Your task to perform on an android device: open app "DoorDash - Dasher" (install if not already installed) Image 0: 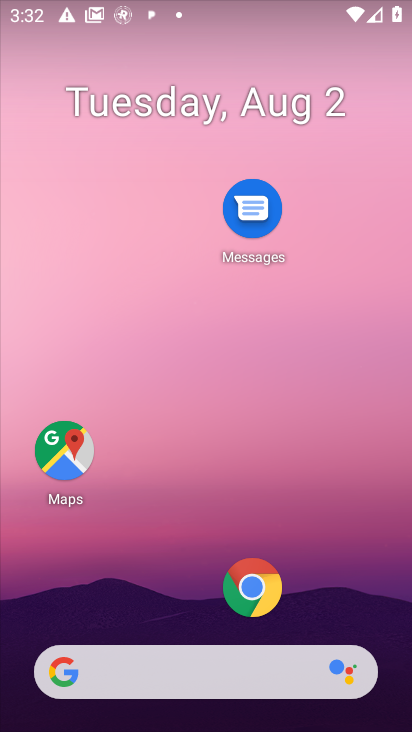
Step 0: drag from (169, 580) to (218, 248)
Your task to perform on an android device: open app "DoorDash - Dasher" (install if not already installed) Image 1: 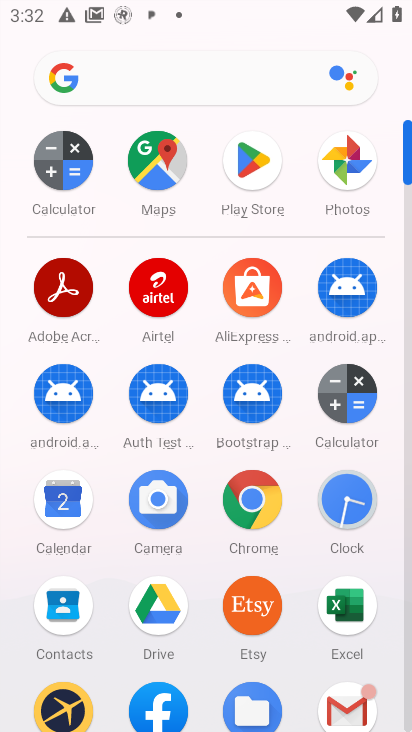
Step 1: click (256, 174)
Your task to perform on an android device: open app "DoorDash - Dasher" (install if not already installed) Image 2: 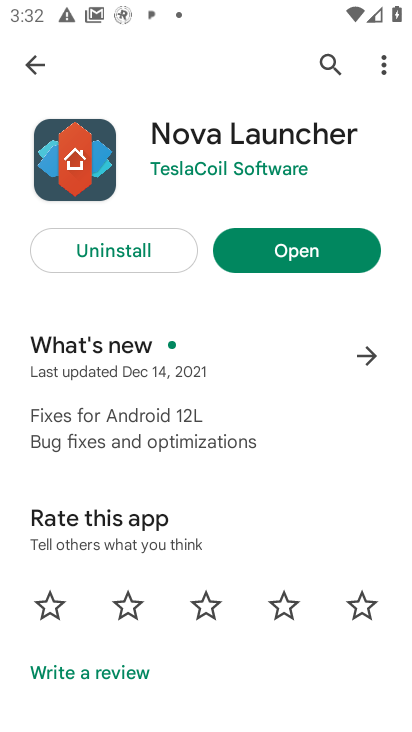
Step 2: click (322, 55)
Your task to perform on an android device: open app "DoorDash - Dasher" (install if not already installed) Image 3: 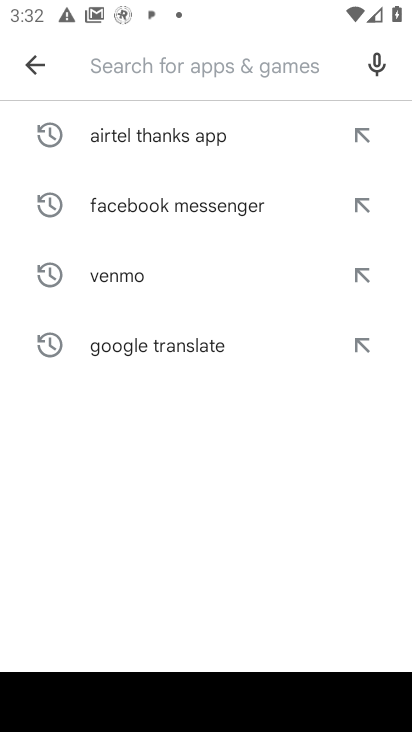
Step 3: type "DoorDash - Dasher"
Your task to perform on an android device: open app "DoorDash - Dasher" (install if not already installed) Image 4: 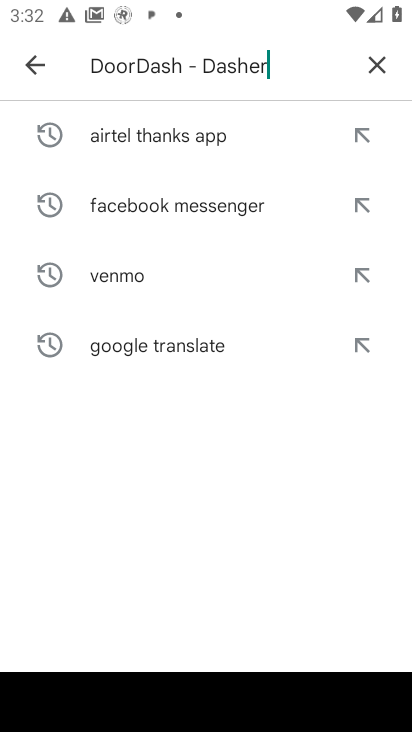
Step 4: type ""
Your task to perform on an android device: open app "DoorDash - Dasher" (install if not already installed) Image 5: 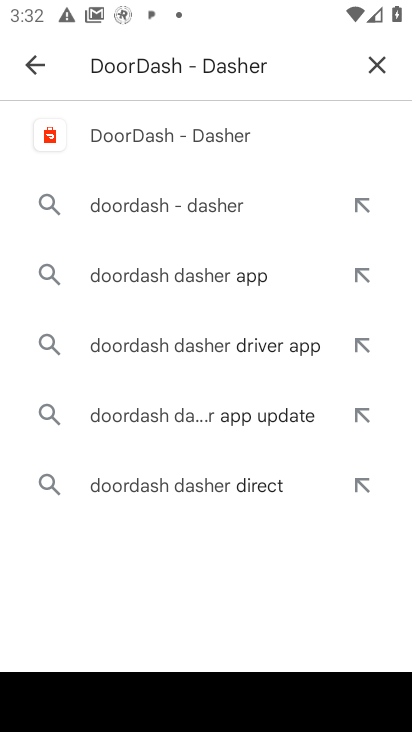
Step 5: click (217, 142)
Your task to perform on an android device: open app "DoorDash - Dasher" (install if not already installed) Image 6: 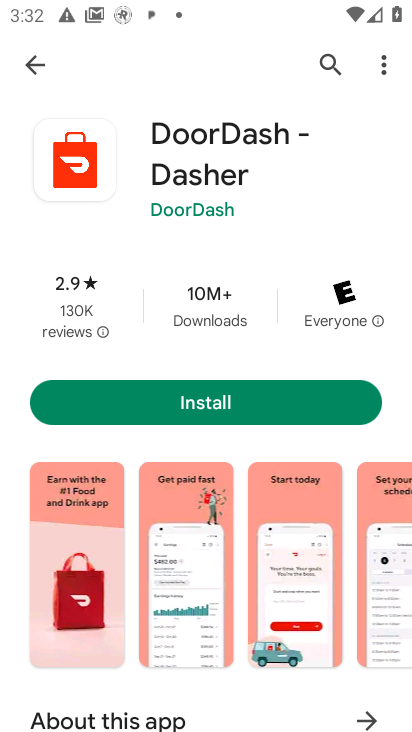
Step 6: click (214, 414)
Your task to perform on an android device: open app "DoorDash - Dasher" (install if not already installed) Image 7: 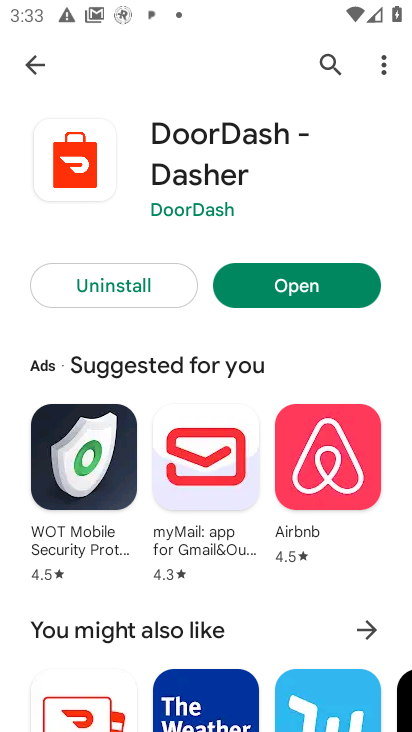
Step 7: click (304, 293)
Your task to perform on an android device: open app "DoorDash - Dasher" (install if not already installed) Image 8: 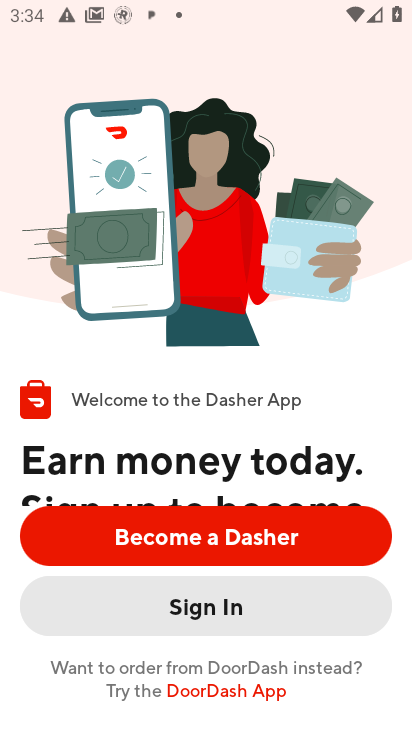
Step 8: task complete